Your task to perform on an android device: change notifications settings Image 0: 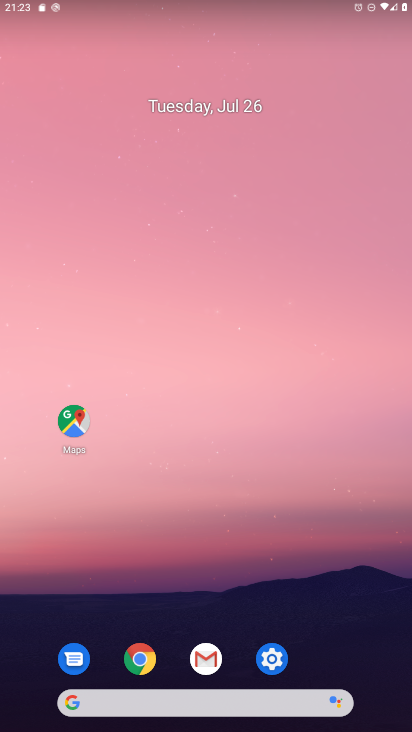
Step 0: click (282, 655)
Your task to perform on an android device: change notifications settings Image 1: 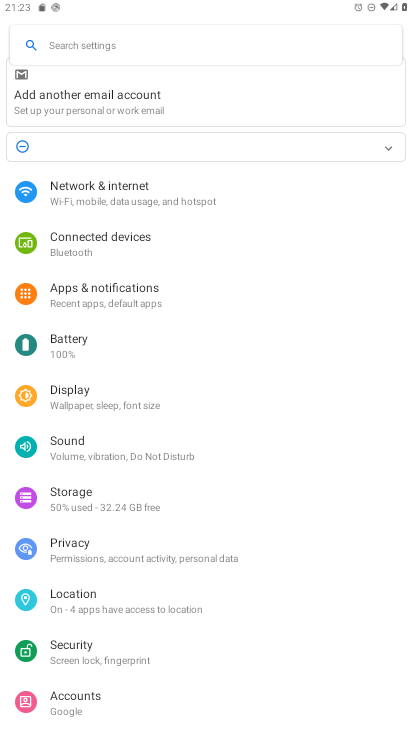
Step 1: click (143, 58)
Your task to perform on an android device: change notifications settings Image 2: 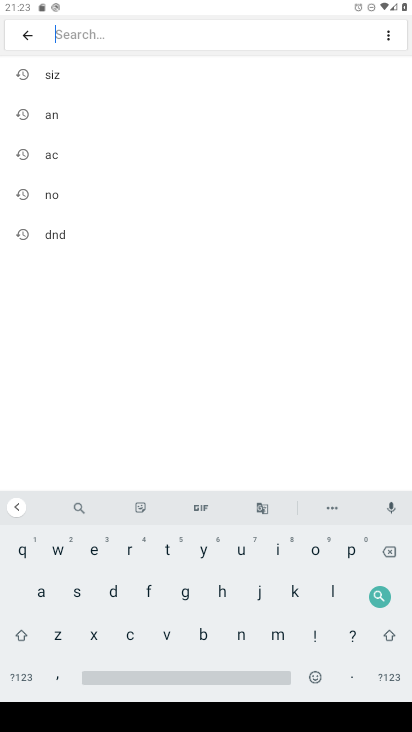
Step 2: click (239, 631)
Your task to perform on an android device: change notifications settings Image 3: 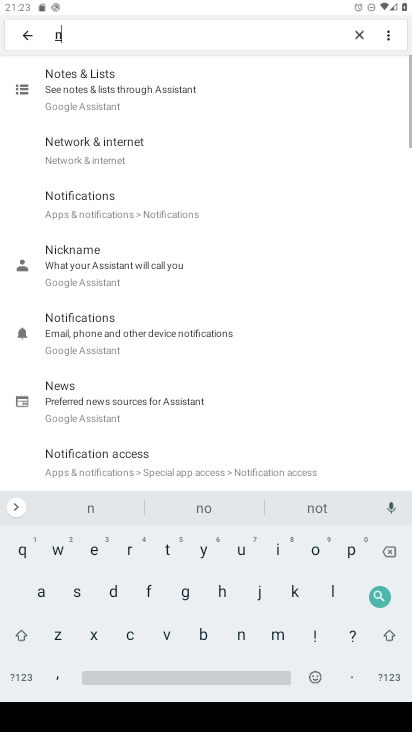
Step 3: click (316, 549)
Your task to perform on an android device: change notifications settings Image 4: 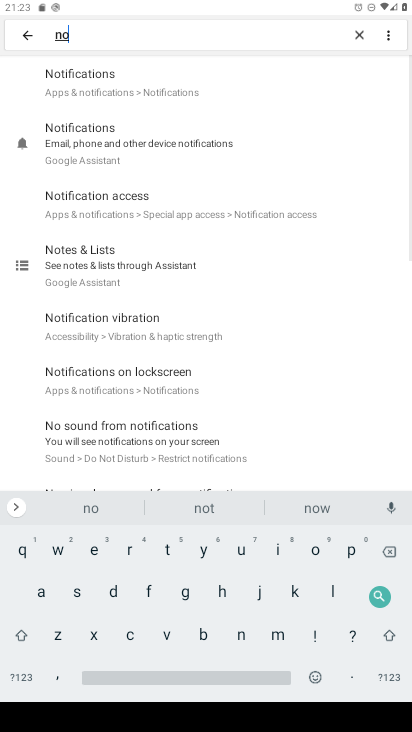
Step 4: click (132, 84)
Your task to perform on an android device: change notifications settings Image 5: 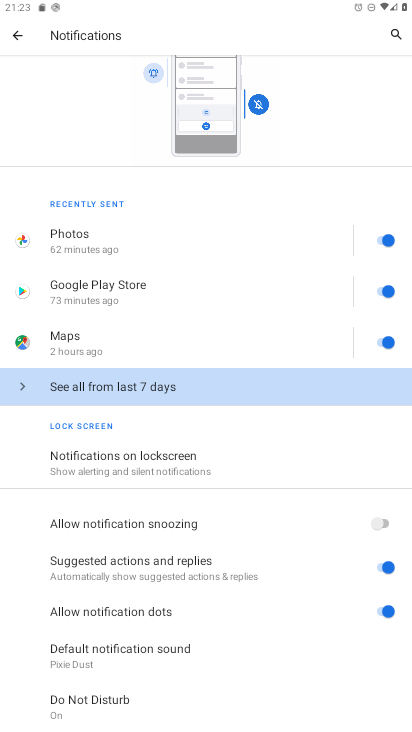
Step 5: click (114, 460)
Your task to perform on an android device: change notifications settings Image 6: 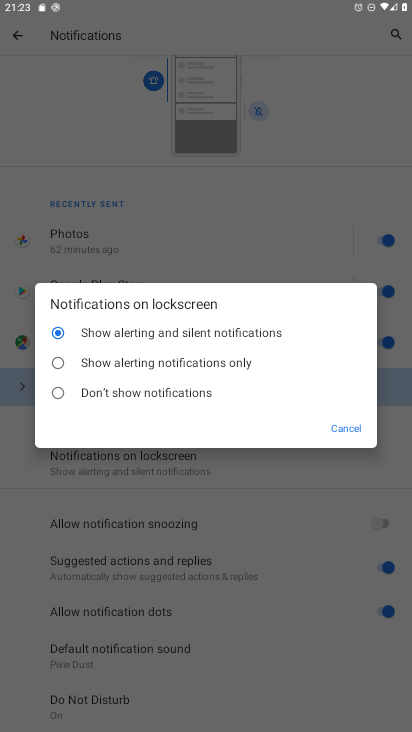
Step 6: click (135, 360)
Your task to perform on an android device: change notifications settings Image 7: 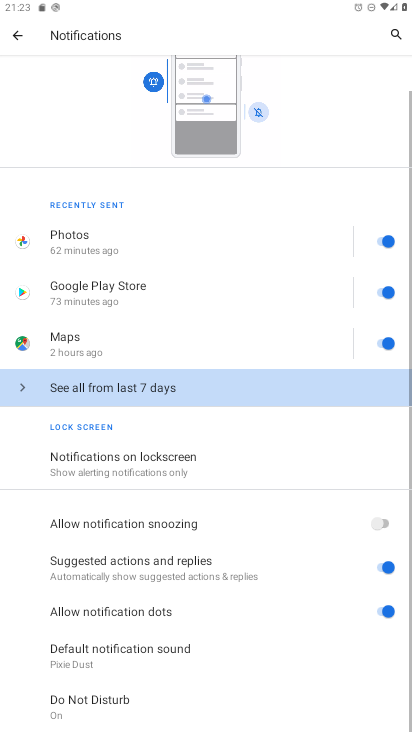
Step 7: click (130, 466)
Your task to perform on an android device: change notifications settings Image 8: 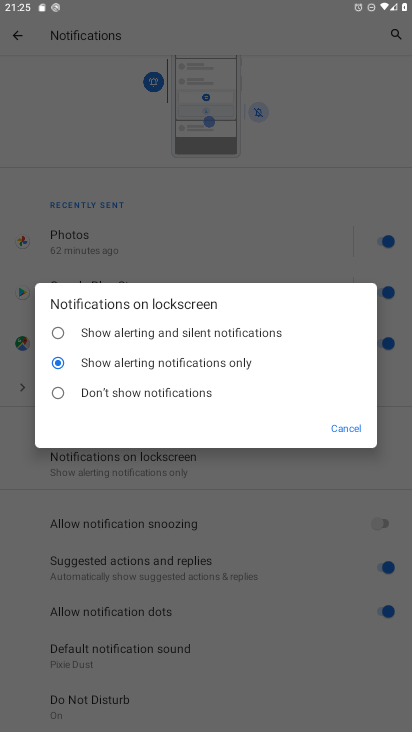
Step 8: task complete